Your task to perform on an android device: refresh tabs in the chrome app Image 0: 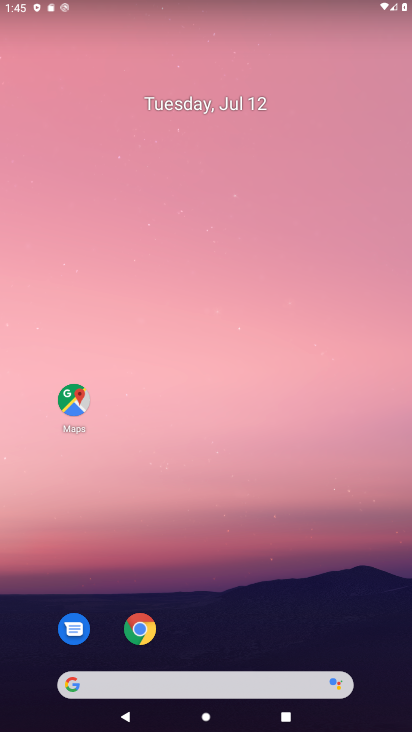
Step 0: drag from (317, 622) to (292, 60)
Your task to perform on an android device: refresh tabs in the chrome app Image 1: 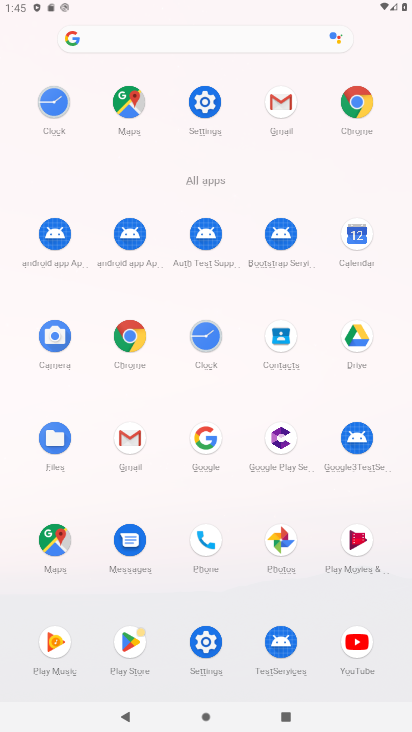
Step 1: click (361, 104)
Your task to perform on an android device: refresh tabs in the chrome app Image 2: 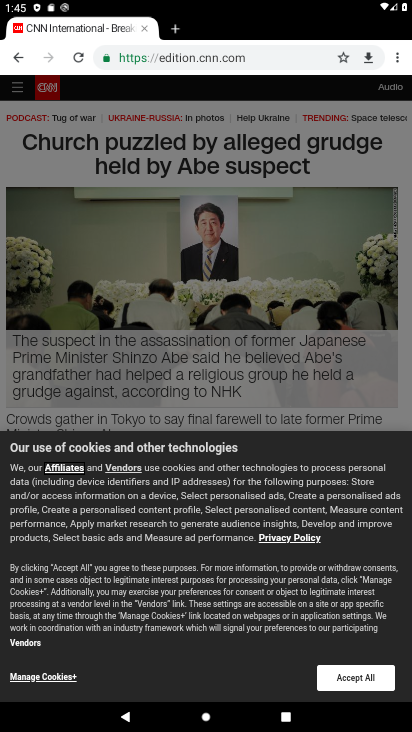
Step 2: click (80, 62)
Your task to perform on an android device: refresh tabs in the chrome app Image 3: 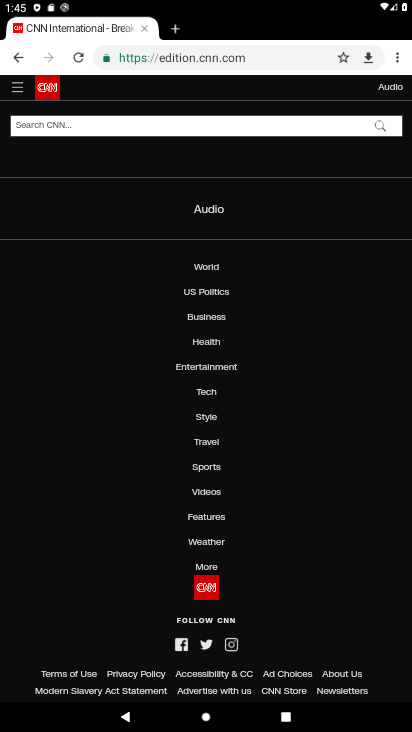
Step 3: task complete